Your task to perform on an android device: visit the assistant section in the google photos Image 0: 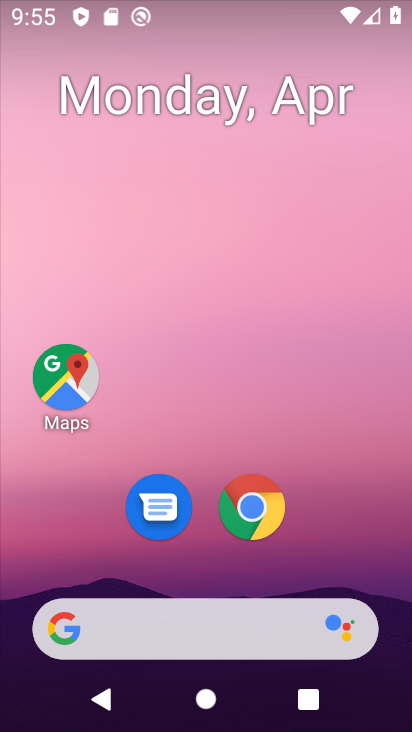
Step 0: drag from (300, 468) to (260, 44)
Your task to perform on an android device: visit the assistant section in the google photos Image 1: 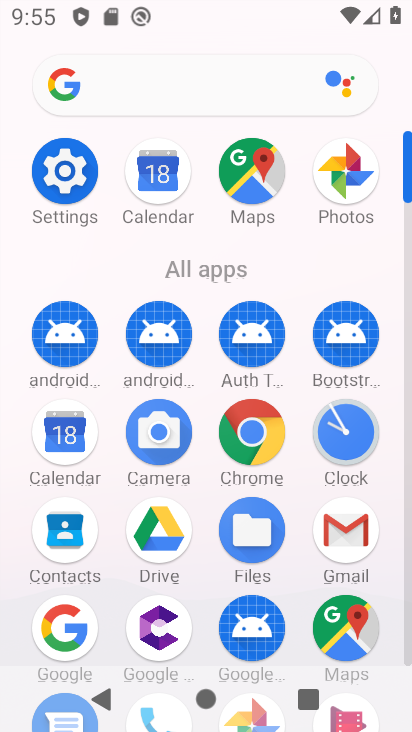
Step 1: click (334, 165)
Your task to perform on an android device: visit the assistant section in the google photos Image 2: 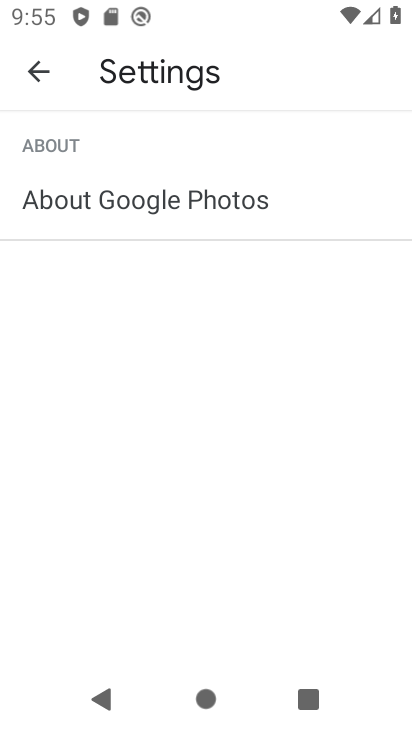
Step 2: click (43, 81)
Your task to perform on an android device: visit the assistant section in the google photos Image 3: 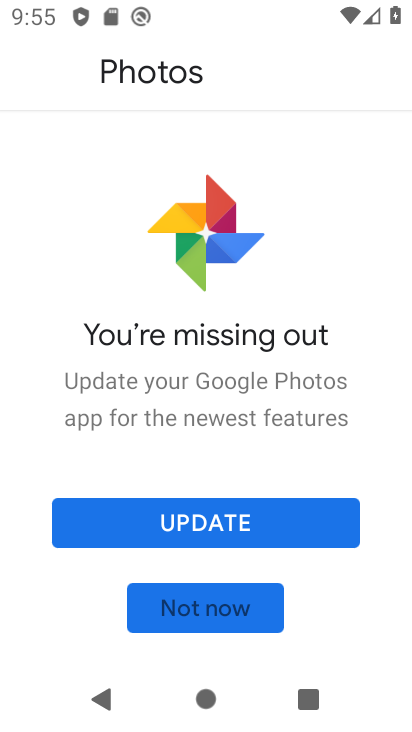
Step 3: click (213, 596)
Your task to perform on an android device: visit the assistant section in the google photos Image 4: 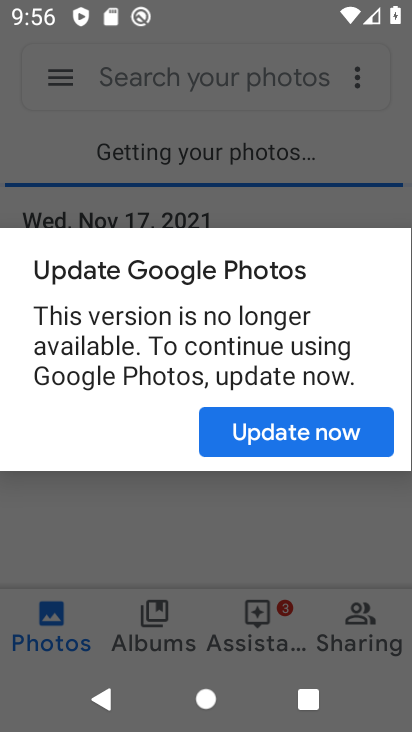
Step 4: click (228, 520)
Your task to perform on an android device: visit the assistant section in the google photos Image 5: 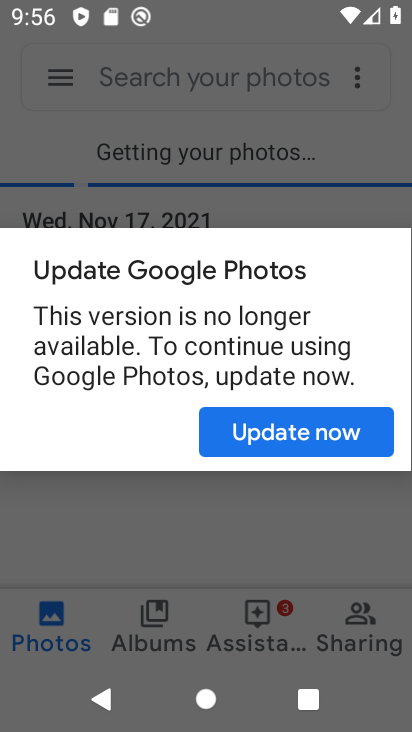
Step 5: click (239, 433)
Your task to perform on an android device: visit the assistant section in the google photos Image 6: 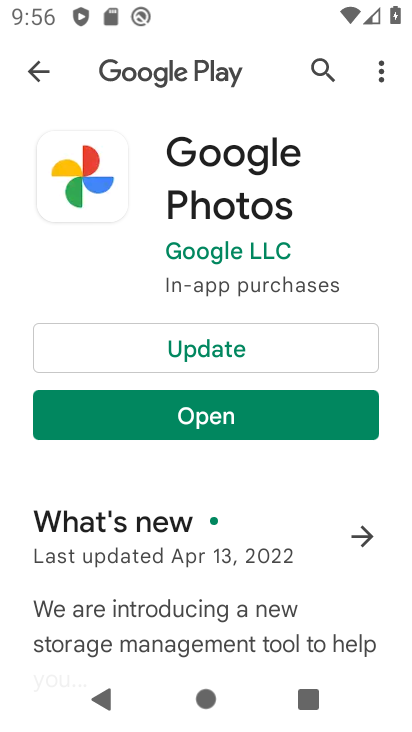
Step 6: click (235, 362)
Your task to perform on an android device: visit the assistant section in the google photos Image 7: 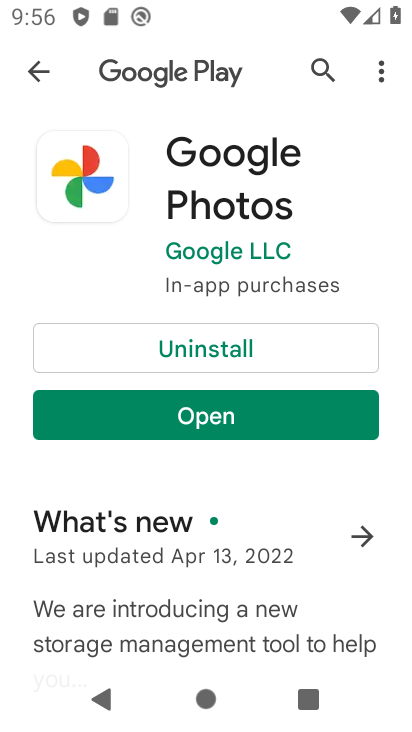
Step 7: click (259, 423)
Your task to perform on an android device: visit the assistant section in the google photos Image 8: 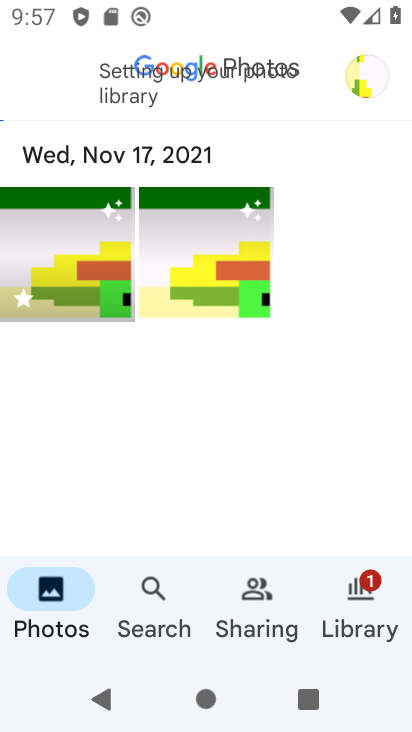
Step 8: click (354, 583)
Your task to perform on an android device: visit the assistant section in the google photos Image 9: 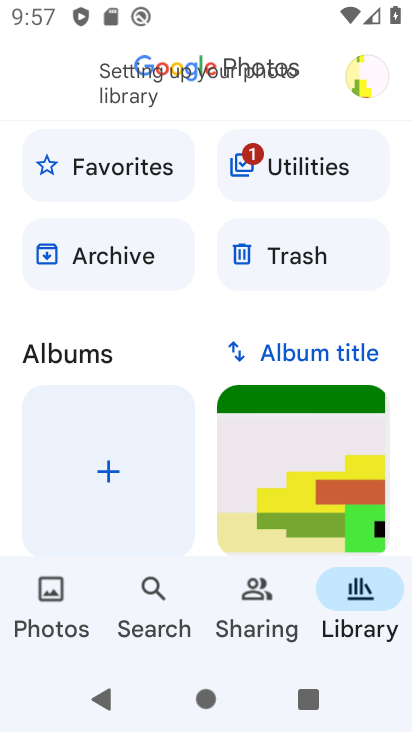
Step 9: drag from (163, 558) to (179, 192)
Your task to perform on an android device: visit the assistant section in the google photos Image 10: 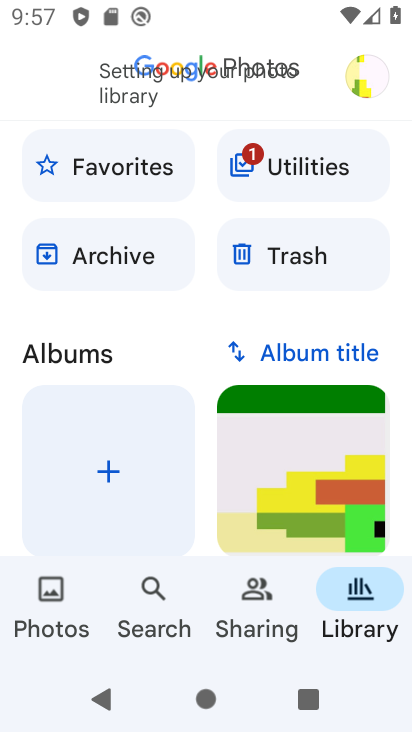
Step 10: drag from (207, 450) to (216, 167)
Your task to perform on an android device: visit the assistant section in the google photos Image 11: 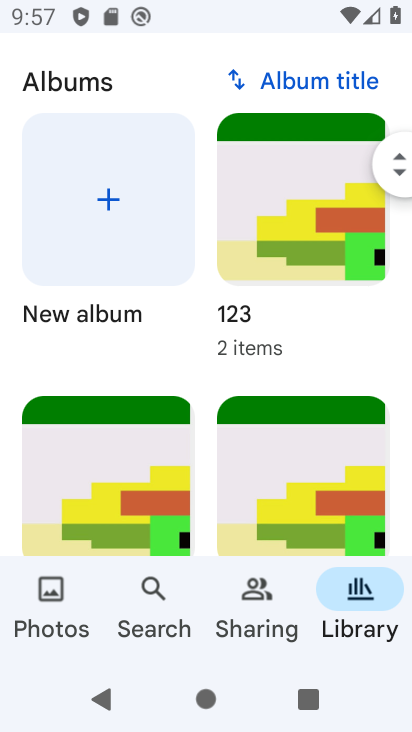
Step 11: click (259, 589)
Your task to perform on an android device: visit the assistant section in the google photos Image 12: 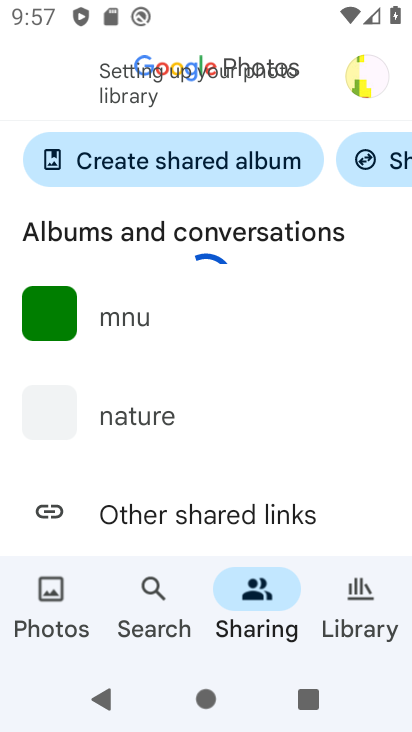
Step 12: drag from (245, 518) to (206, 293)
Your task to perform on an android device: visit the assistant section in the google photos Image 13: 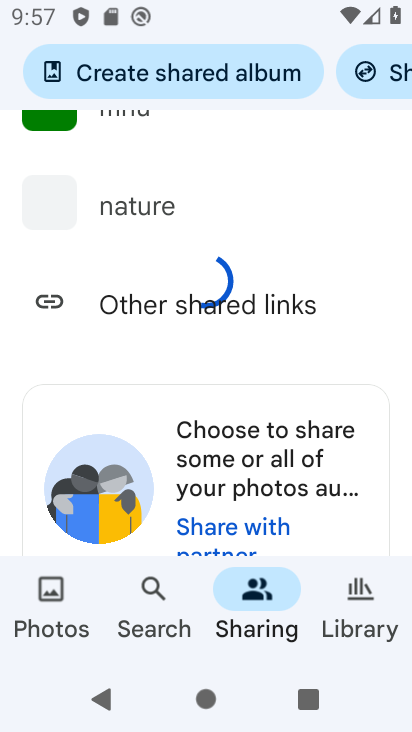
Step 13: drag from (169, 499) to (155, 226)
Your task to perform on an android device: visit the assistant section in the google photos Image 14: 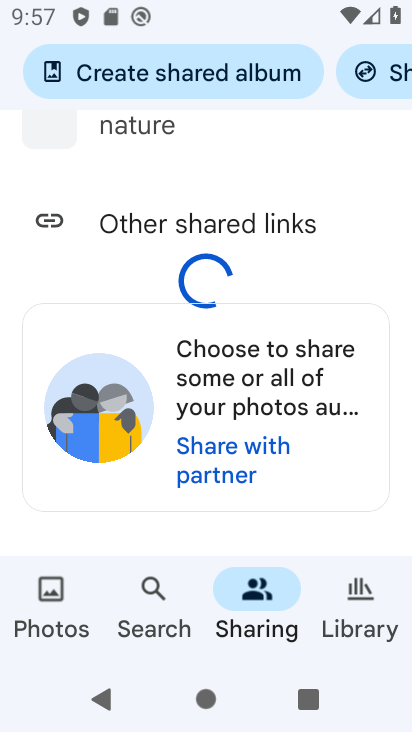
Step 14: click (65, 595)
Your task to perform on an android device: visit the assistant section in the google photos Image 15: 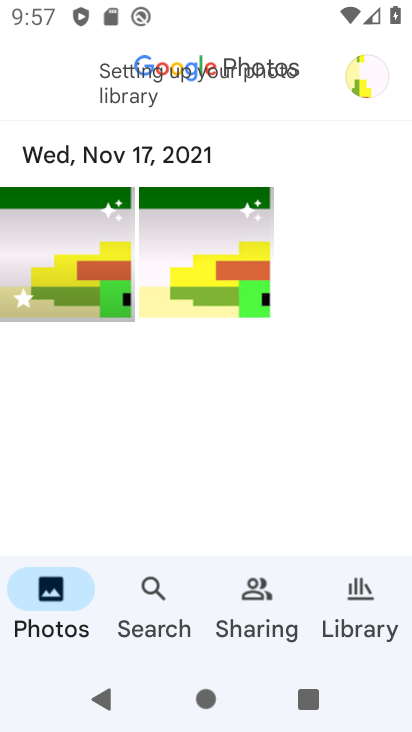
Step 15: click (355, 95)
Your task to perform on an android device: visit the assistant section in the google photos Image 16: 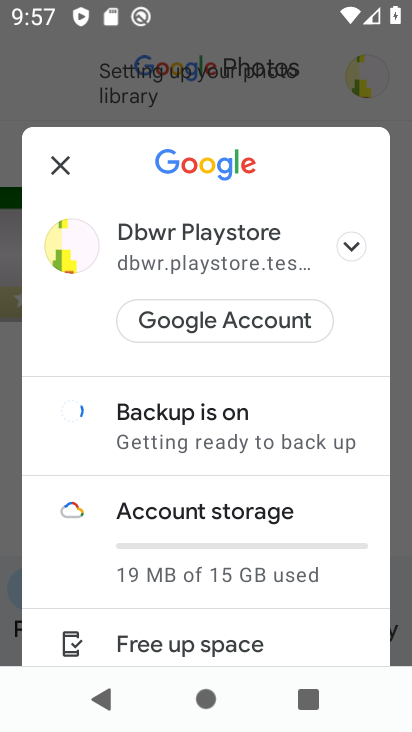
Step 16: task complete